Your task to perform on an android device: open the mobile data screen to see how much data has been used Image 0: 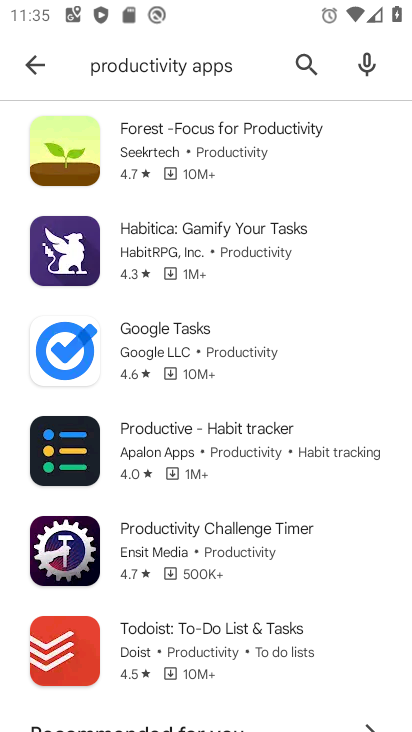
Step 0: press home button
Your task to perform on an android device: open the mobile data screen to see how much data has been used Image 1: 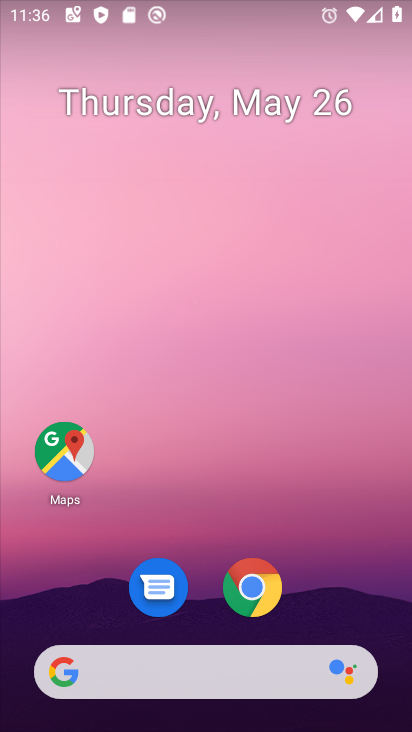
Step 1: drag from (312, 694) to (379, 8)
Your task to perform on an android device: open the mobile data screen to see how much data has been used Image 2: 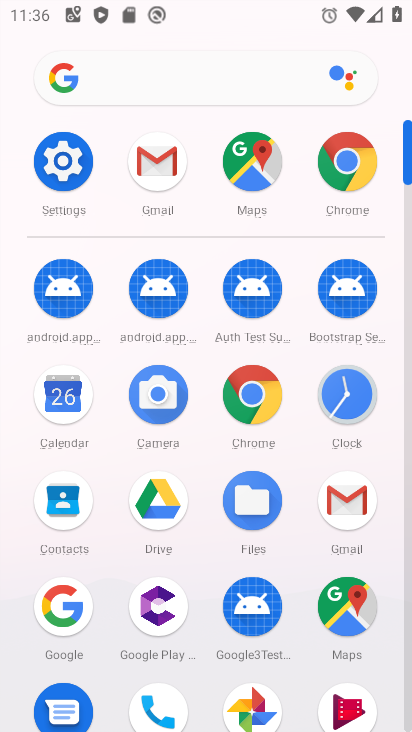
Step 2: click (78, 167)
Your task to perform on an android device: open the mobile data screen to see how much data has been used Image 3: 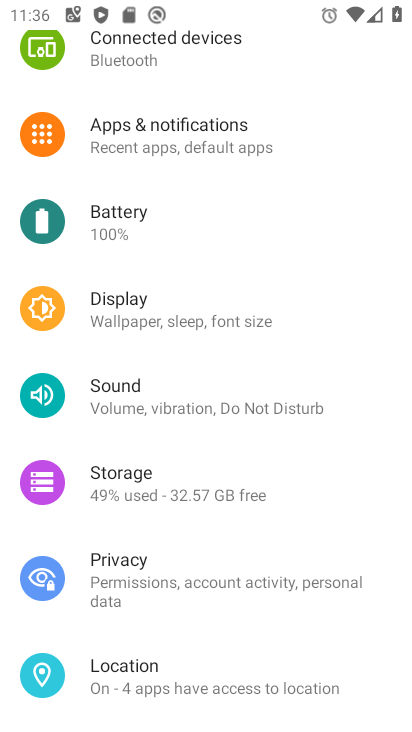
Step 3: drag from (124, 141) to (81, 478)
Your task to perform on an android device: open the mobile data screen to see how much data has been used Image 4: 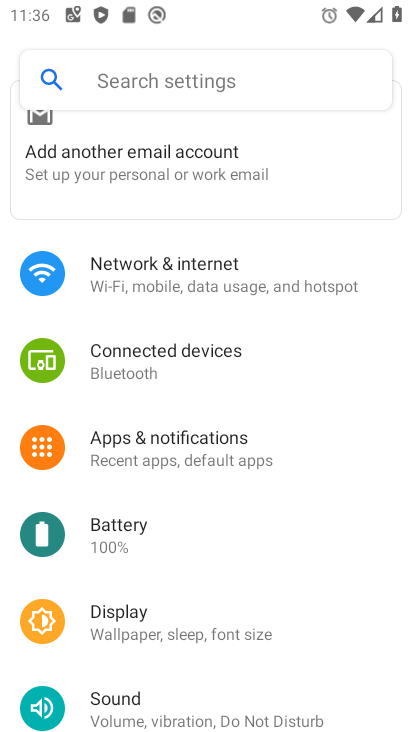
Step 4: click (125, 80)
Your task to perform on an android device: open the mobile data screen to see how much data has been used Image 5: 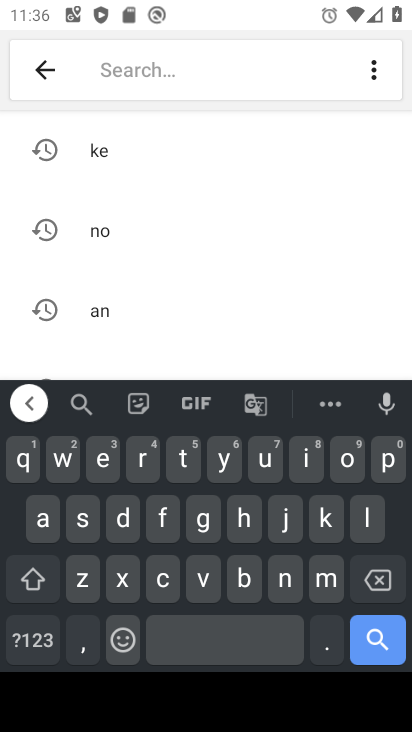
Step 5: click (126, 525)
Your task to perform on an android device: open the mobile data screen to see how much data has been used Image 6: 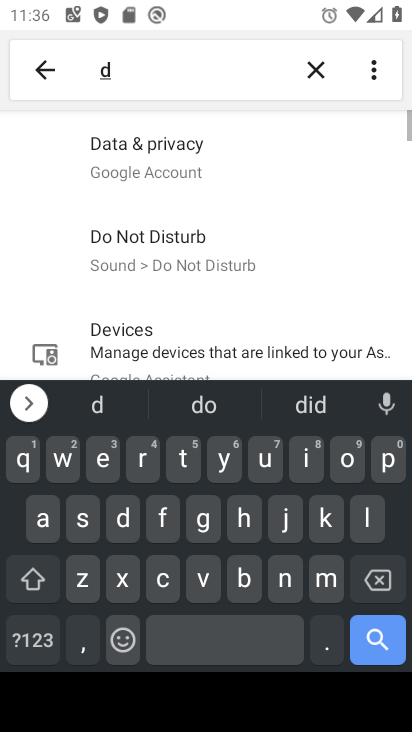
Step 6: click (26, 522)
Your task to perform on an android device: open the mobile data screen to see how much data has been used Image 7: 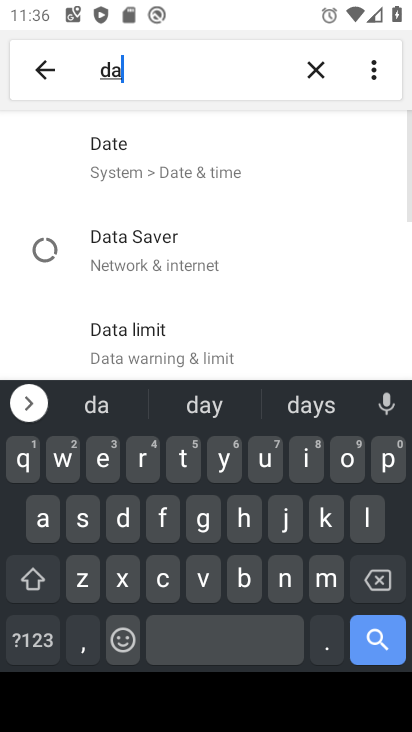
Step 7: click (179, 465)
Your task to perform on an android device: open the mobile data screen to see how much data has been used Image 8: 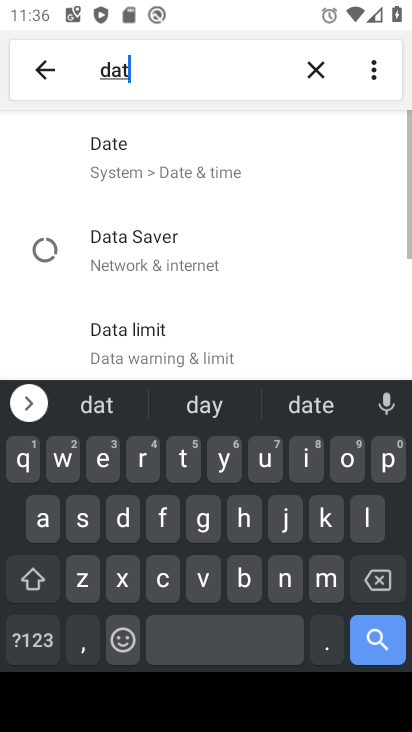
Step 8: click (38, 522)
Your task to perform on an android device: open the mobile data screen to see how much data has been used Image 9: 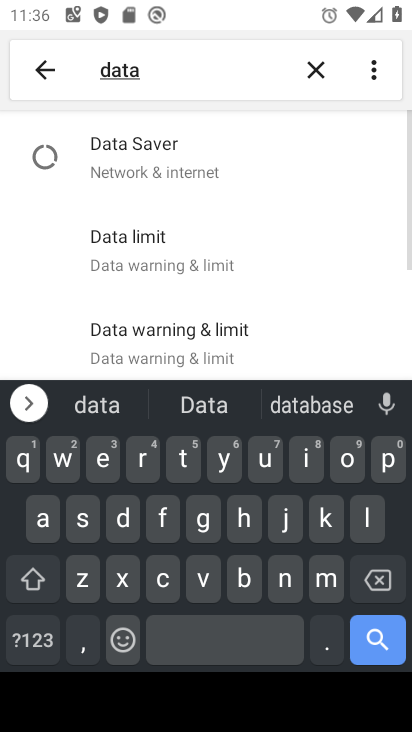
Step 9: click (225, 644)
Your task to perform on an android device: open the mobile data screen to see how much data has been used Image 10: 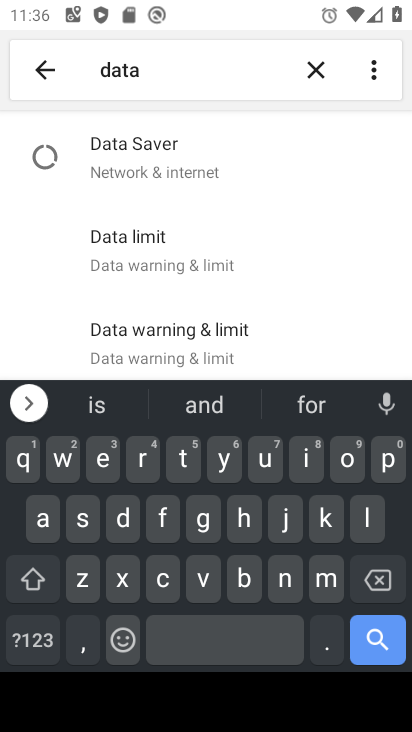
Step 10: click (264, 465)
Your task to perform on an android device: open the mobile data screen to see how much data has been used Image 11: 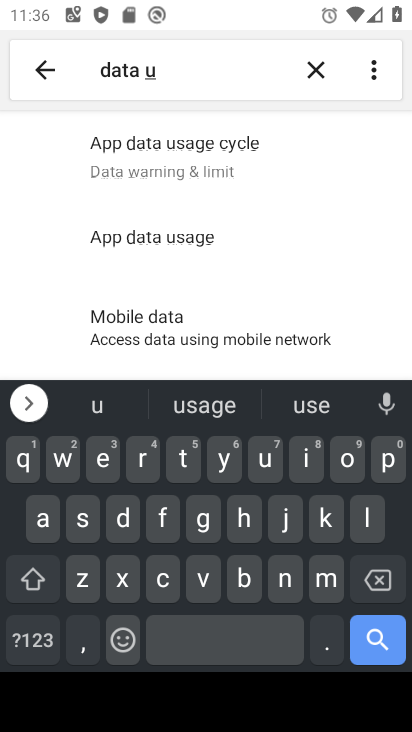
Step 11: click (170, 248)
Your task to perform on an android device: open the mobile data screen to see how much data has been used Image 12: 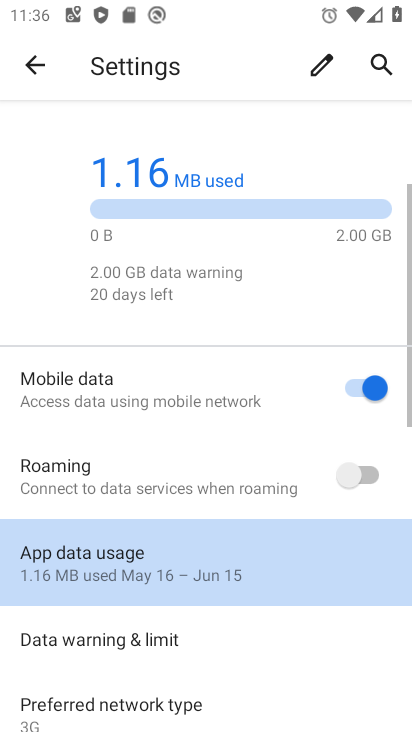
Step 12: click (144, 573)
Your task to perform on an android device: open the mobile data screen to see how much data has been used Image 13: 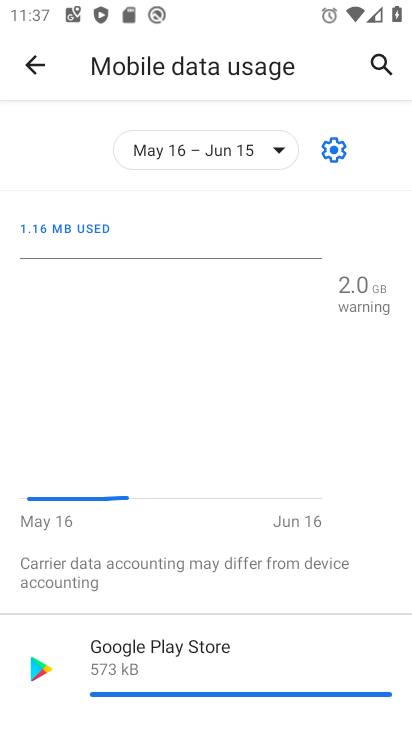
Step 13: task complete